Your task to perform on an android device: Open Google Chrome and open the bookmarks view Image 0: 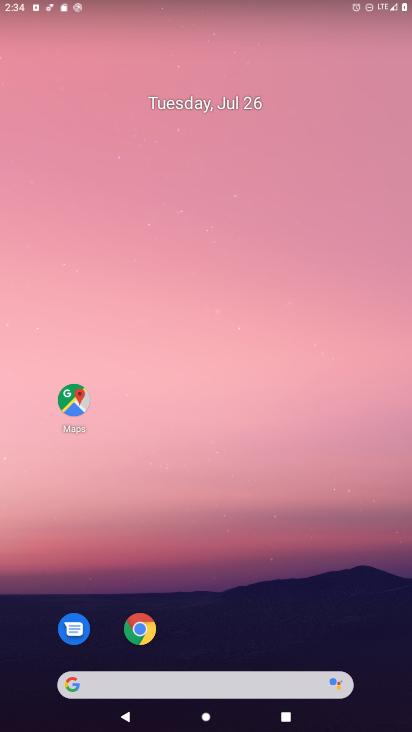
Step 0: click (142, 630)
Your task to perform on an android device: Open Google Chrome and open the bookmarks view Image 1: 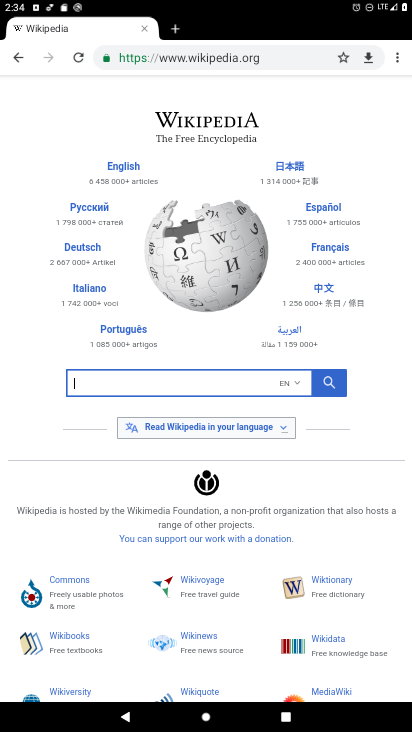
Step 1: click (398, 61)
Your task to perform on an android device: Open Google Chrome and open the bookmarks view Image 2: 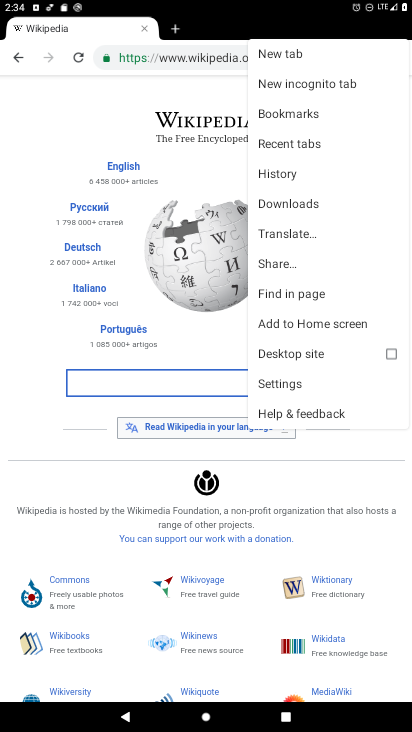
Step 2: click (293, 115)
Your task to perform on an android device: Open Google Chrome and open the bookmarks view Image 3: 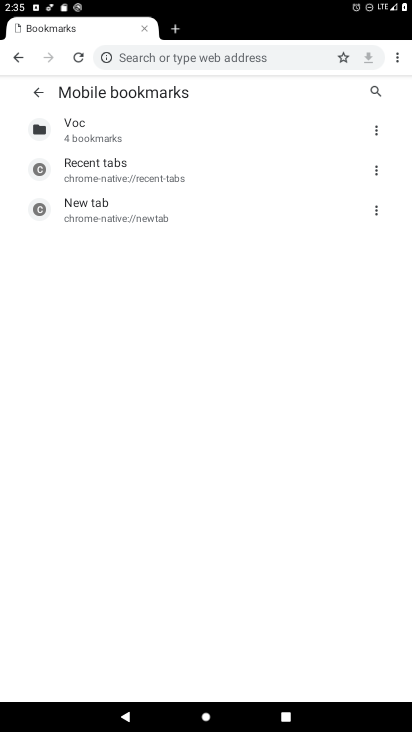
Step 3: task complete